Your task to perform on an android device: manage bookmarks in the chrome app Image 0: 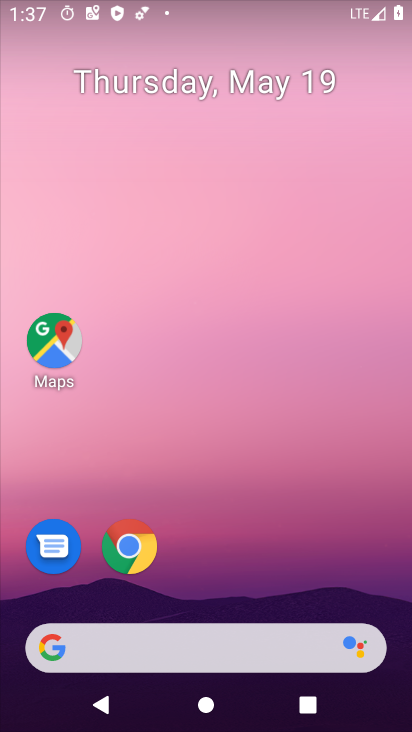
Step 0: click (137, 535)
Your task to perform on an android device: manage bookmarks in the chrome app Image 1: 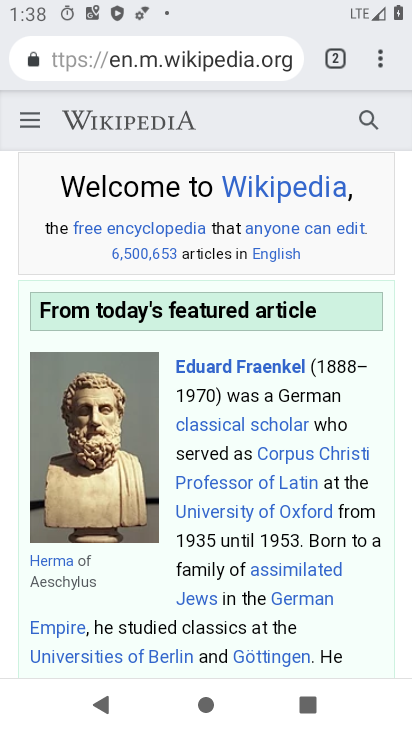
Step 1: click (374, 61)
Your task to perform on an android device: manage bookmarks in the chrome app Image 2: 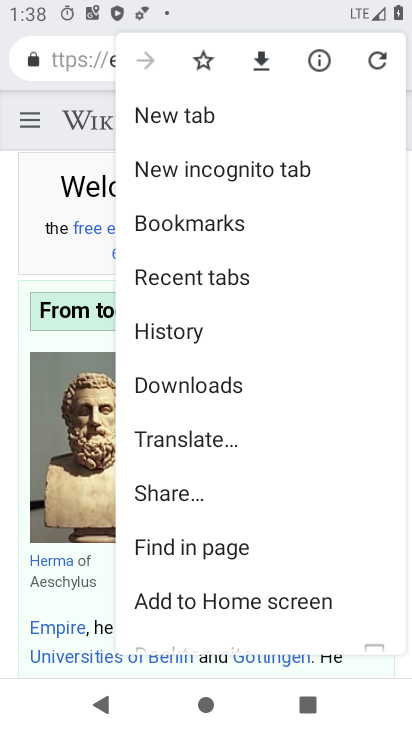
Step 2: click (199, 222)
Your task to perform on an android device: manage bookmarks in the chrome app Image 3: 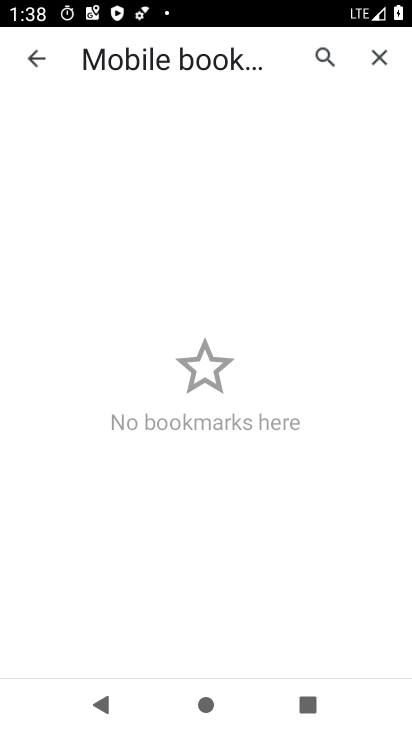
Step 3: task complete